Your task to perform on an android device: change notification settings in the gmail app Image 0: 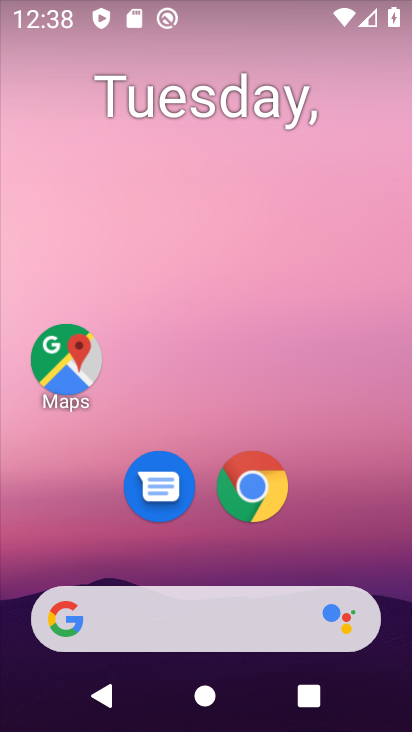
Step 0: drag from (396, 545) to (335, 141)
Your task to perform on an android device: change notification settings in the gmail app Image 1: 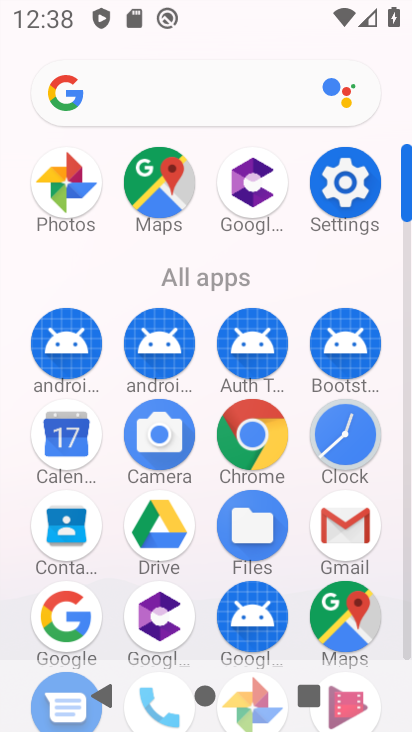
Step 1: click (348, 529)
Your task to perform on an android device: change notification settings in the gmail app Image 2: 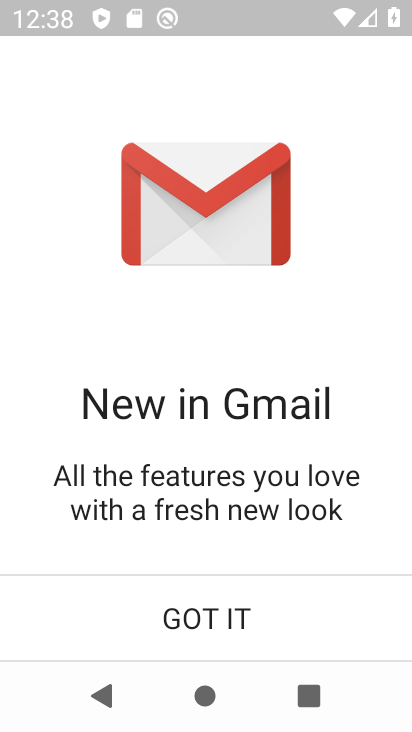
Step 2: click (173, 629)
Your task to perform on an android device: change notification settings in the gmail app Image 3: 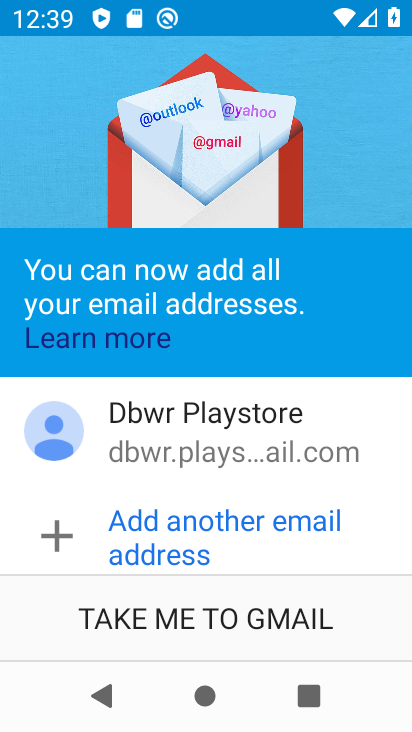
Step 3: click (173, 629)
Your task to perform on an android device: change notification settings in the gmail app Image 4: 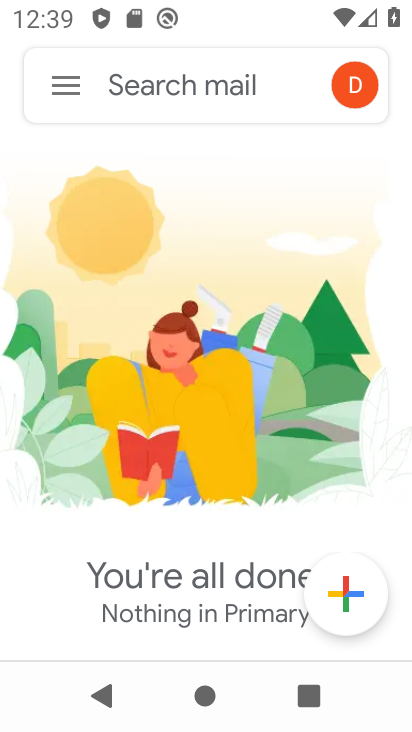
Step 4: click (66, 88)
Your task to perform on an android device: change notification settings in the gmail app Image 5: 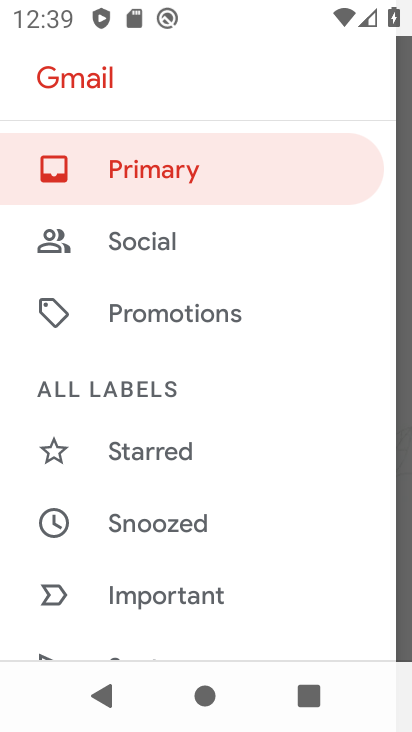
Step 5: drag from (194, 623) to (199, 24)
Your task to perform on an android device: change notification settings in the gmail app Image 6: 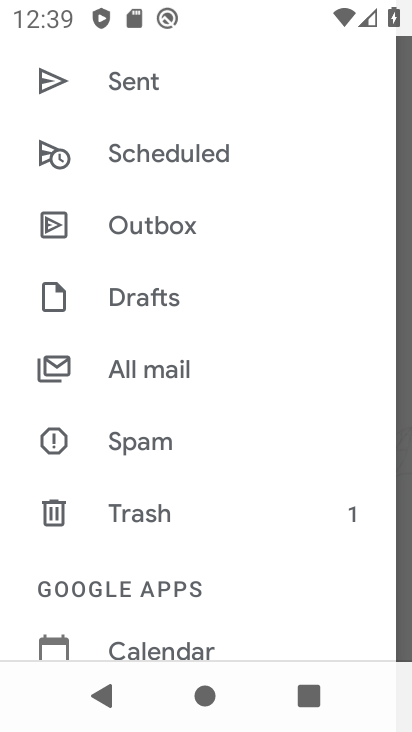
Step 6: drag from (217, 592) to (236, 165)
Your task to perform on an android device: change notification settings in the gmail app Image 7: 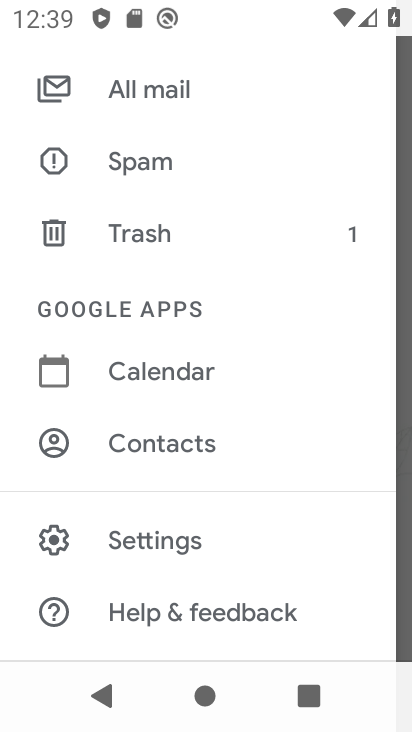
Step 7: click (224, 544)
Your task to perform on an android device: change notification settings in the gmail app Image 8: 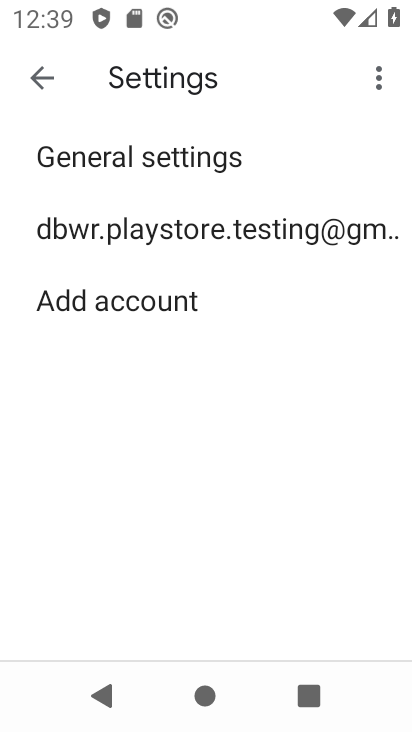
Step 8: click (220, 262)
Your task to perform on an android device: change notification settings in the gmail app Image 9: 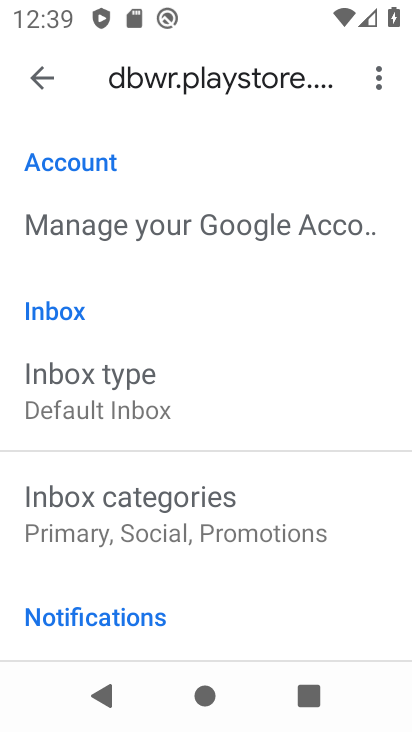
Step 9: drag from (236, 607) to (221, 228)
Your task to perform on an android device: change notification settings in the gmail app Image 10: 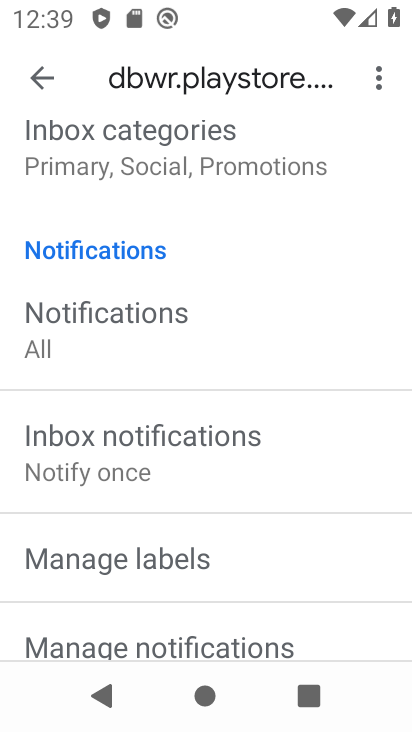
Step 10: drag from (266, 590) to (236, 317)
Your task to perform on an android device: change notification settings in the gmail app Image 11: 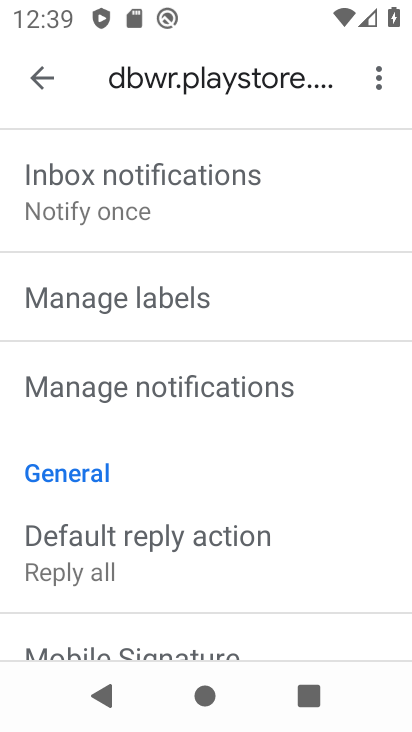
Step 11: click (253, 408)
Your task to perform on an android device: change notification settings in the gmail app Image 12: 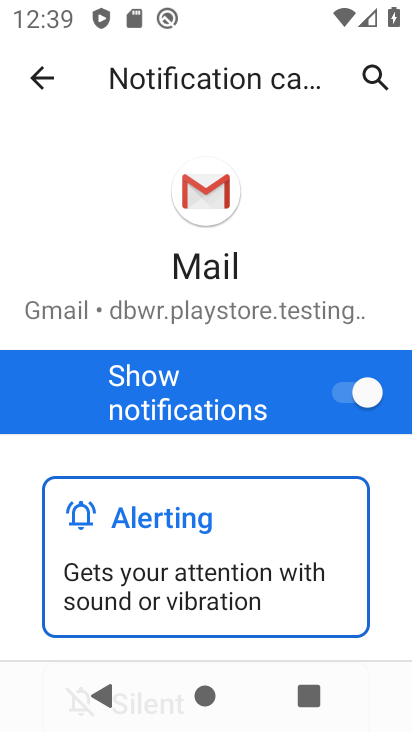
Step 12: drag from (393, 642) to (319, 239)
Your task to perform on an android device: change notification settings in the gmail app Image 13: 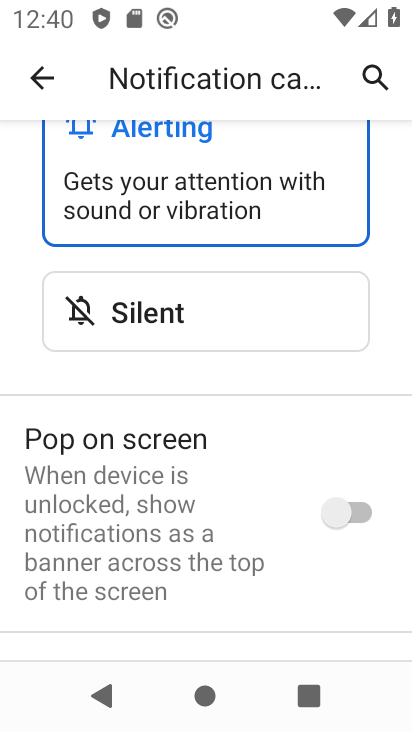
Step 13: click (279, 329)
Your task to perform on an android device: change notification settings in the gmail app Image 14: 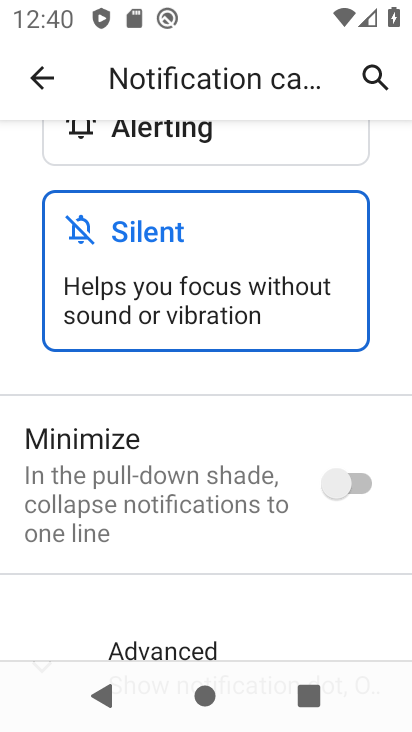
Step 14: click (347, 476)
Your task to perform on an android device: change notification settings in the gmail app Image 15: 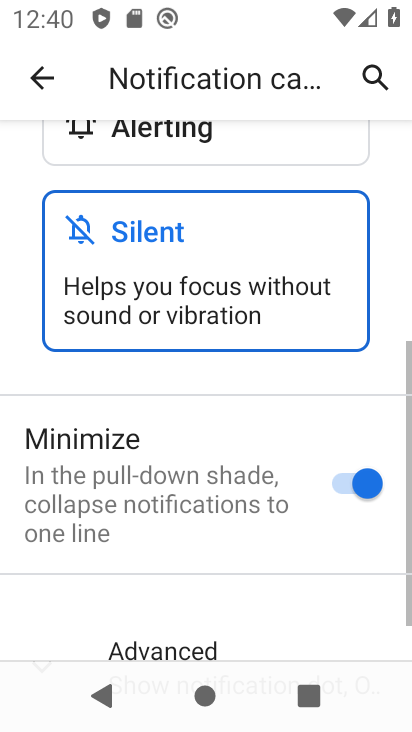
Step 15: task complete